Your task to perform on an android device: create a new album in the google photos Image 0: 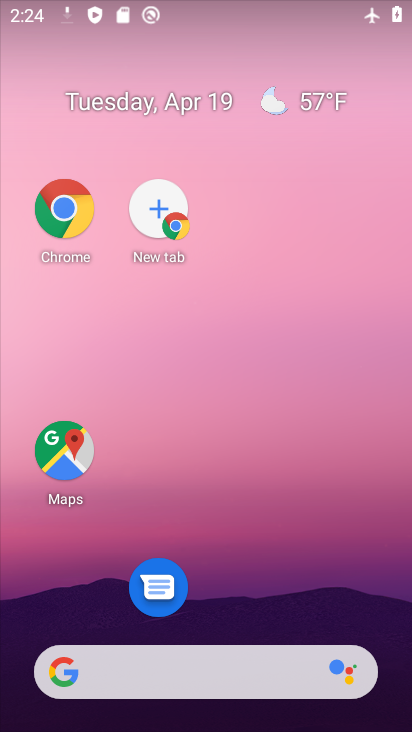
Step 0: drag from (206, 615) to (188, 243)
Your task to perform on an android device: create a new album in the google photos Image 1: 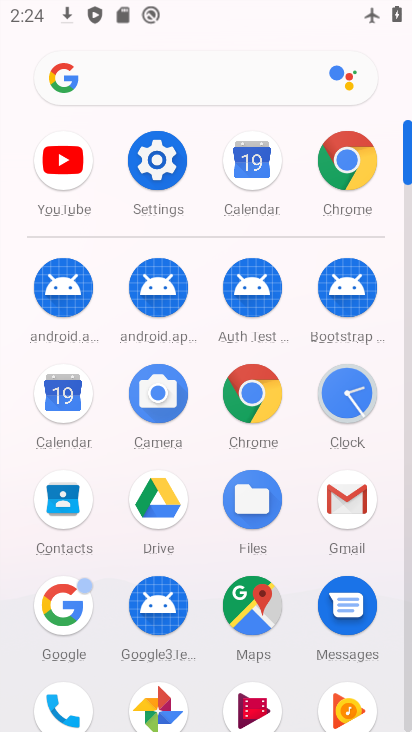
Step 1: click (163, 696)
Your task to perform on an android device: create a new album in the google photos Image 2: 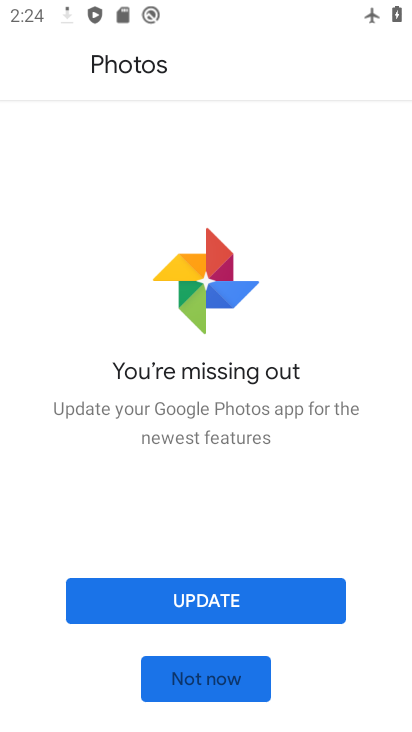
Step 2: click (223, 671)
Your task to perform on an android device: create a new album in the google photos Image 3: 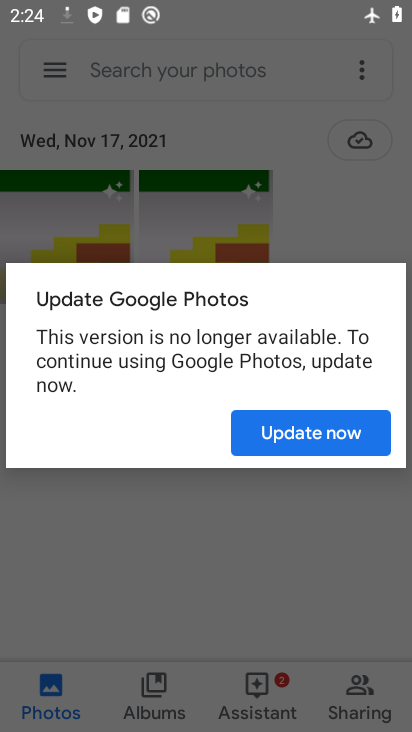
Step 3: click (347, 436)
Your task to perform on an android device: create a new album in the google photos Image 4: 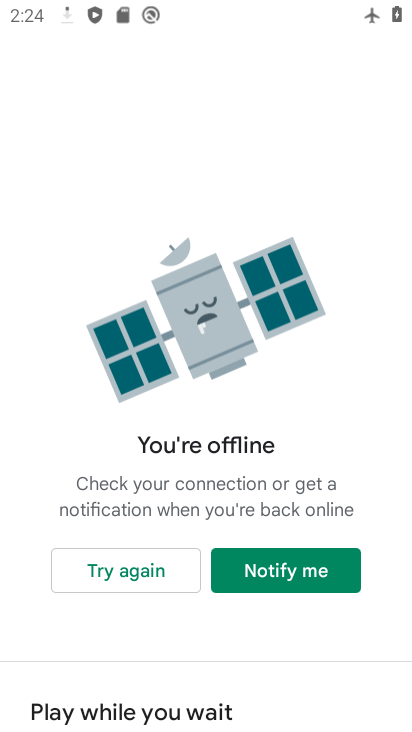
Step 4: task complete